Your task to perform on an android device: Open Reddit.com Image 0: 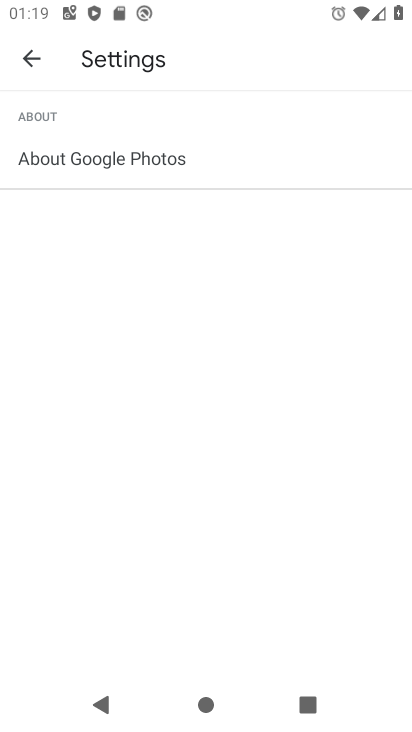
Step 0: press home button
Your task to perform on an android device: Open Reddit.com Image 1: 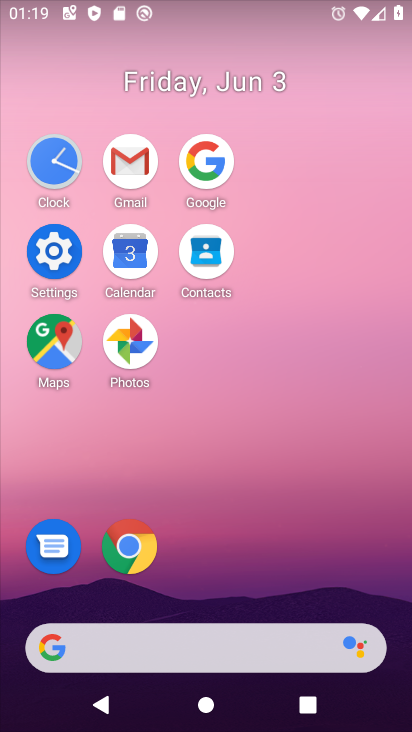
Step 1: click (198, 157)
Your task to perform on an android device: Open Reddit.com Image 2: 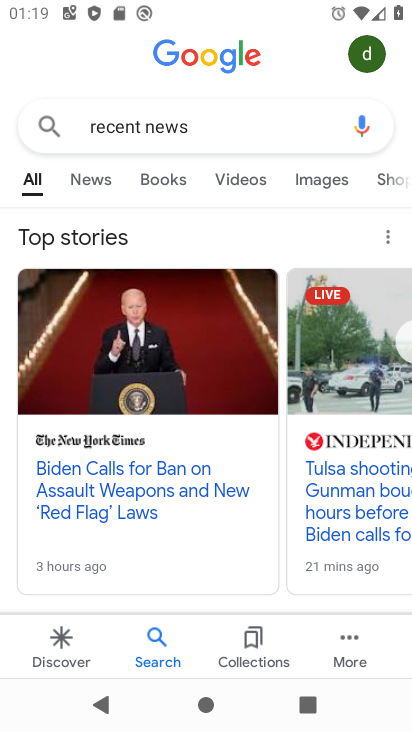
Step 2: click (270, 130)
Your task to perform on an android device: Open Reddit.com Image 3: 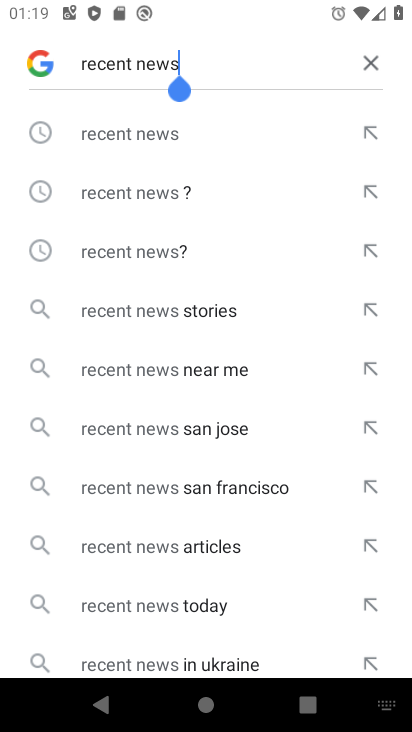
Step 3: click (383, 56)
Your task to perform on an android device: Open Reddit.com Image 4: 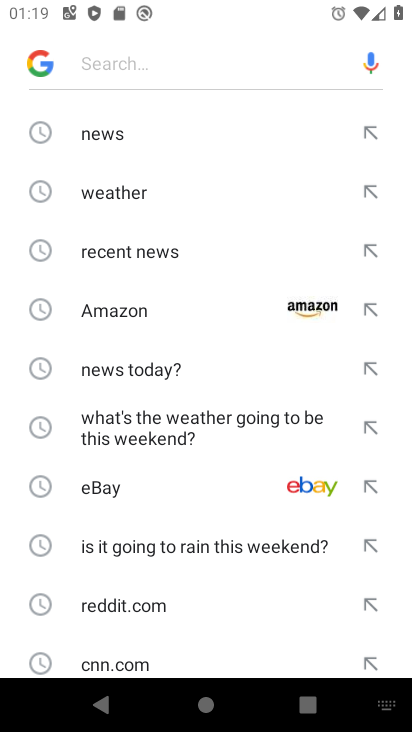
Step 4: click (178, 602)
Your task to perform on an android device: Open Reddit.com Image 5: 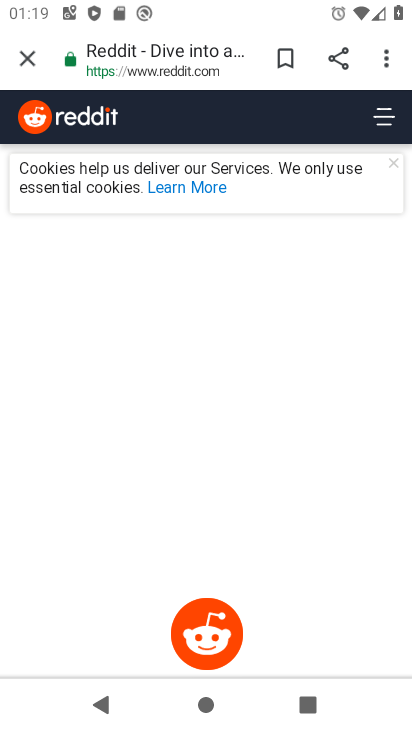
Step 5: task complete